Your task to perform on an android device: change alarm snooze length Image 0: 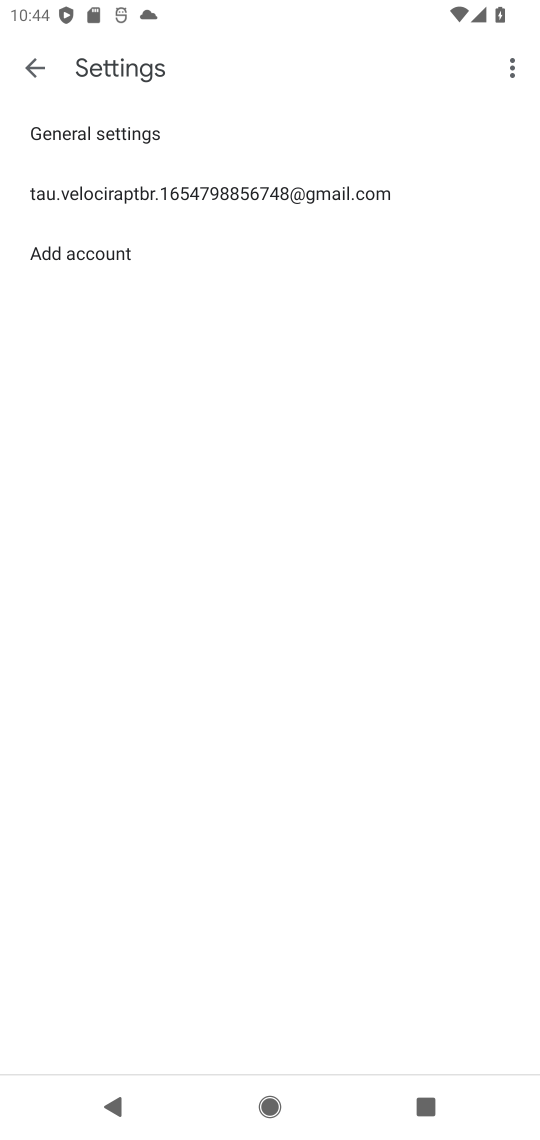
Step 0: click (187, 182)
Your task to perform on an android device: change alarm snooze length Image 1: 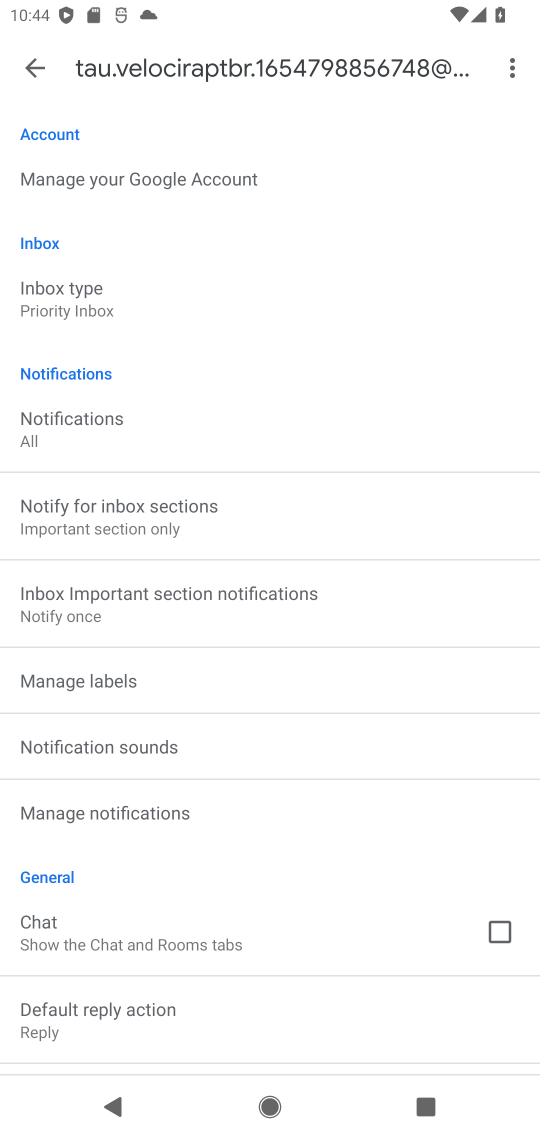
Step 1: press home button
Your task to perform on an android device: change alarm snooze length Image 2: 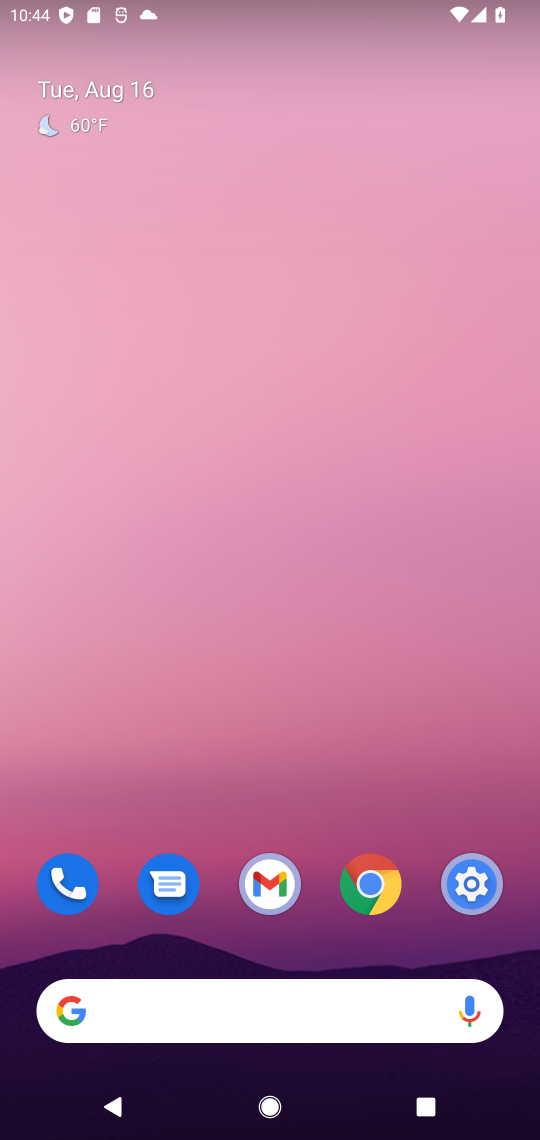
Step 2: drag from (251, 931) to (251, 166)
Your task to perform on an android device: change alarm snooze length Image 3: 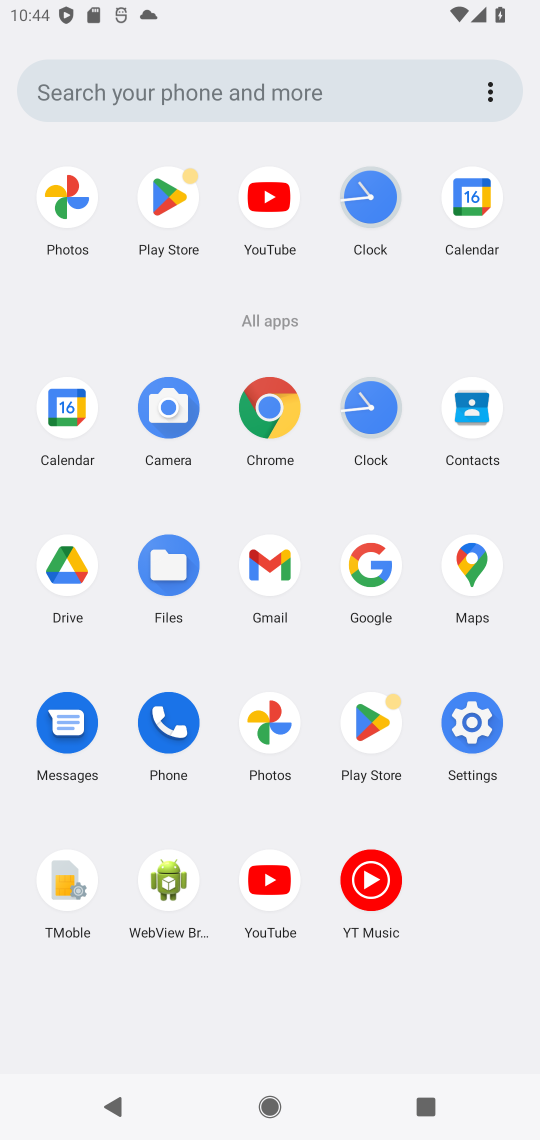
Step 3: click (360, 410)
Your task to perform on an android device: change alarm snooze length Image 4: 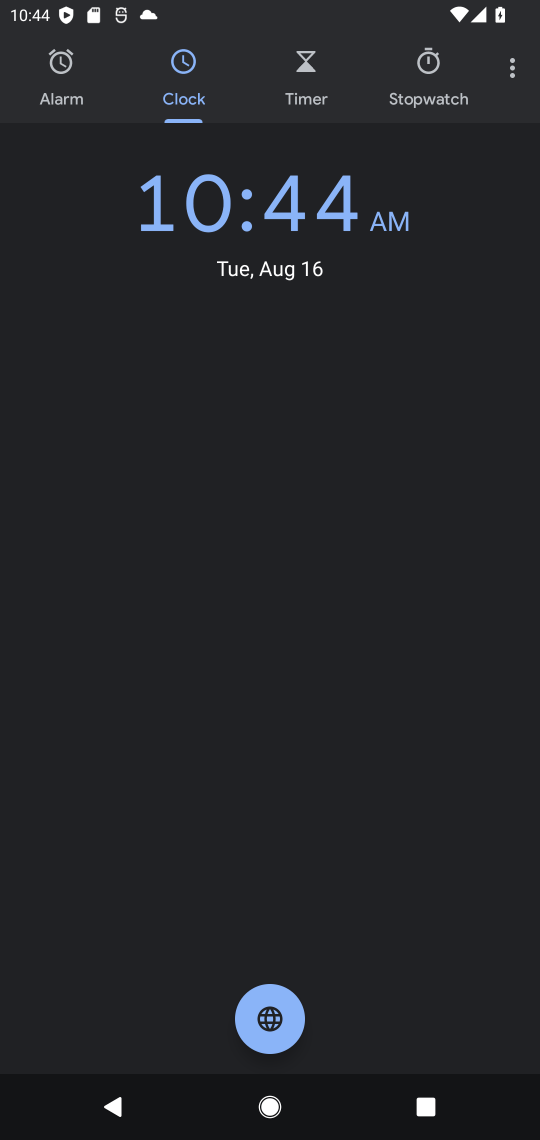
Step 4: click (513, 71)
Your task to perform on an android device: change alarm snooze length Image 5: 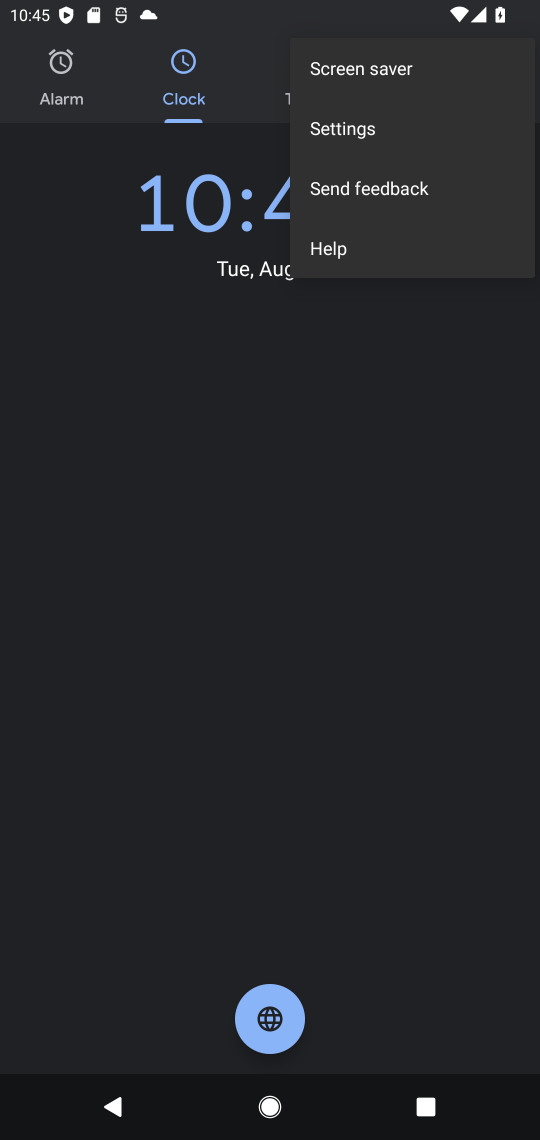
Step 5: click (368, 138)
Your task to perform on an android device: change alarm snooze length Image 6: 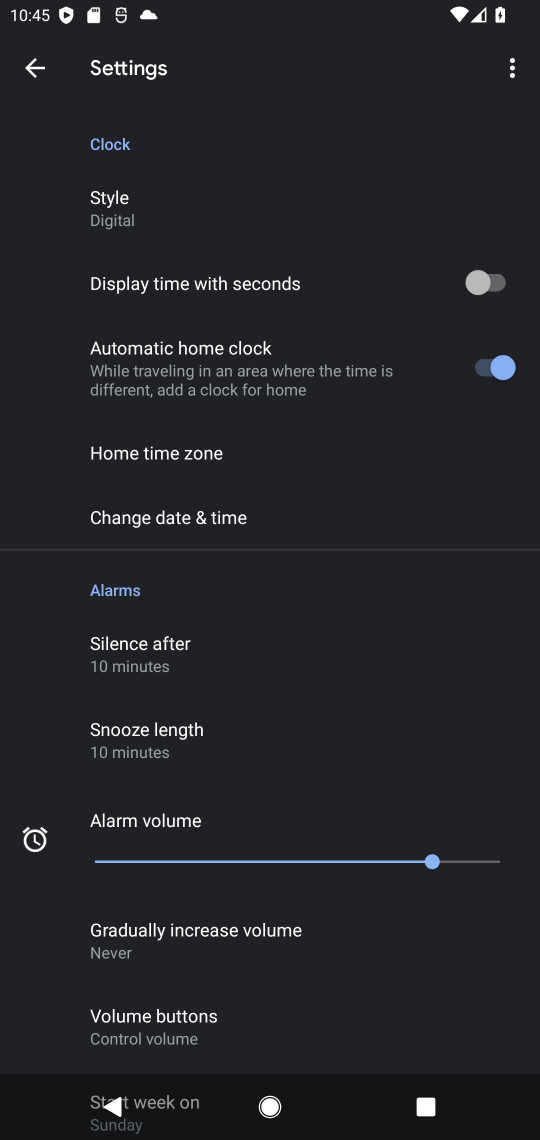
Step 6: click (148, 753)
Your task to perform on an android device: change alarm snooze length Image 7: 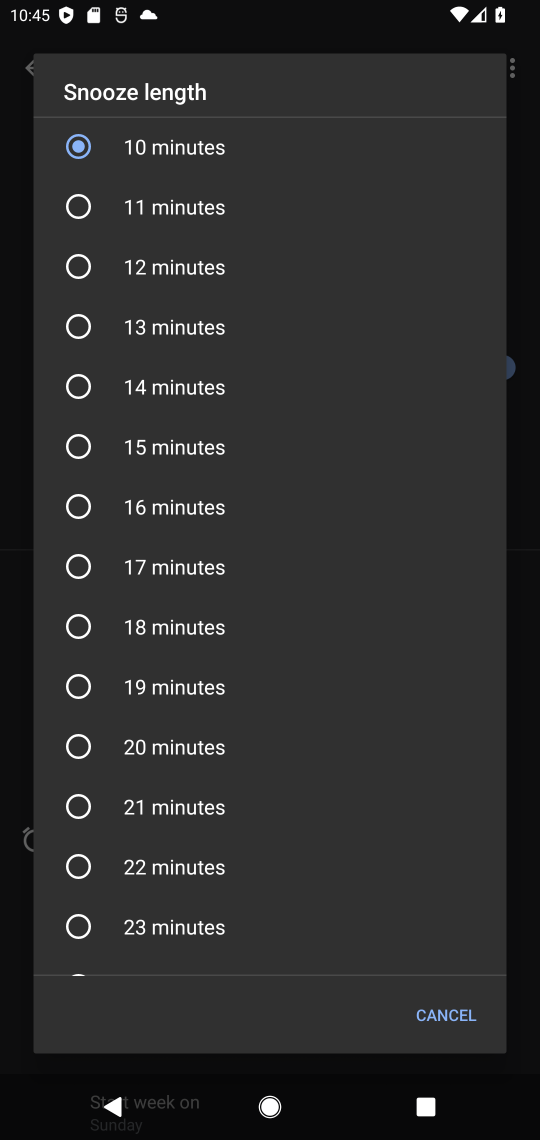
Step 7: click (83, 215)
Your task to perform on an android device: change alarm snooze length Image 8: 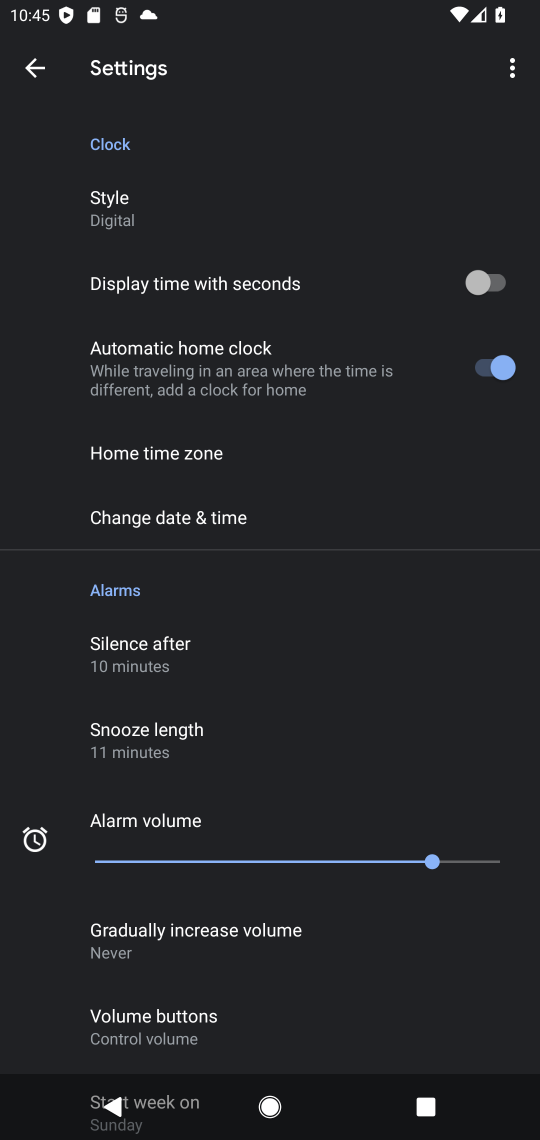
Step 8: task complete